Your task to perform on an android device: open a bookmark in the chrome app Image 0: 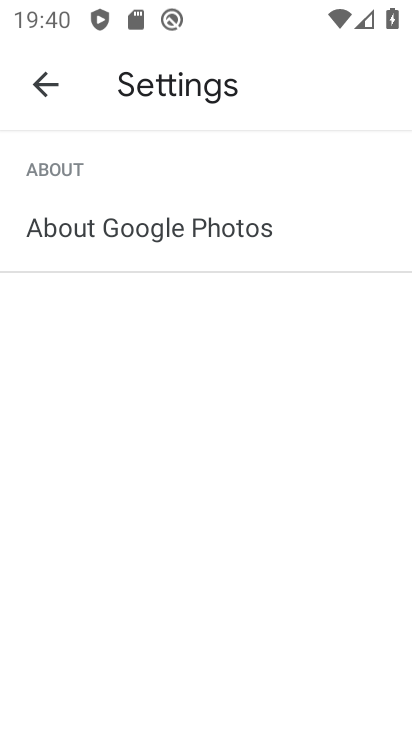
Step 0: press home button
Your task to perform on an android device: open a bookmark in the chrome app Image 1: 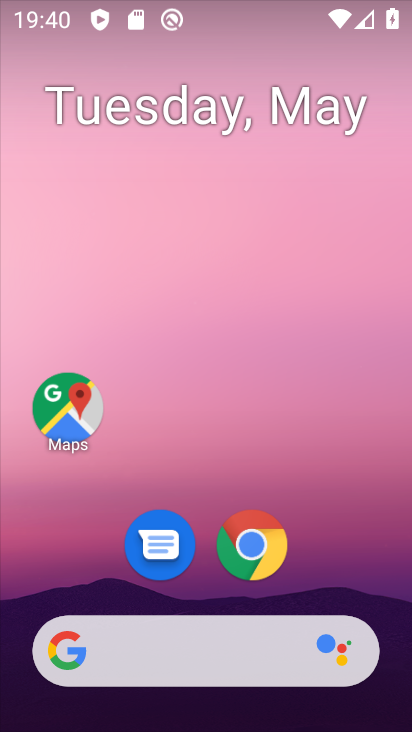
Step 1: click (272, 541)
Your task to perform on an android device: open a bookmark in the chrome app Image 2: 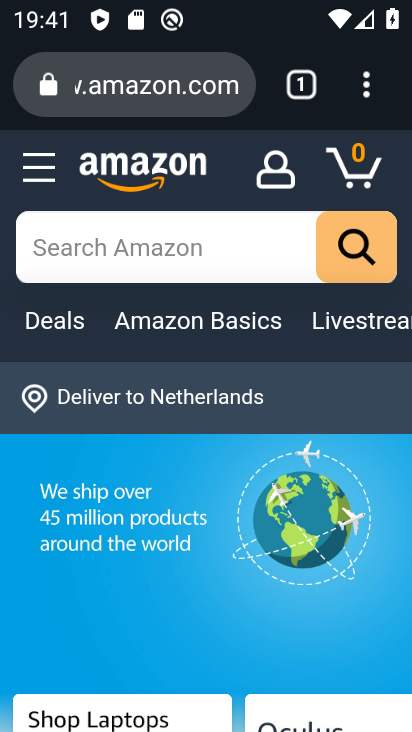
Step 2: click (363, 85)
Your task to perform on an android device: open a bookmark in the chrome app Image 3: 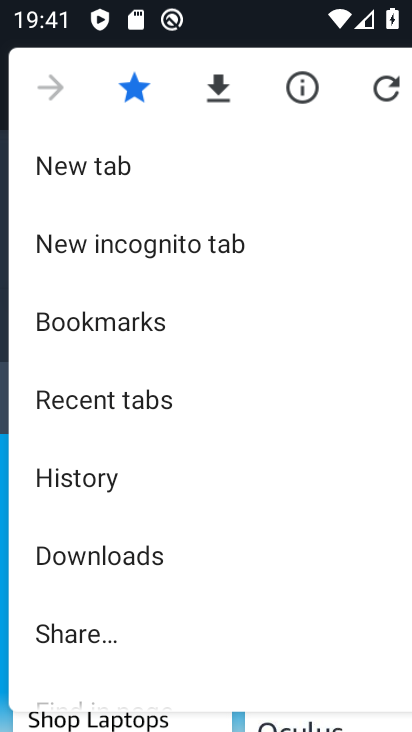
Step 3: click (130, 333)
Your task to perform on an android device: open a bookmark in the chrome app Image 4: 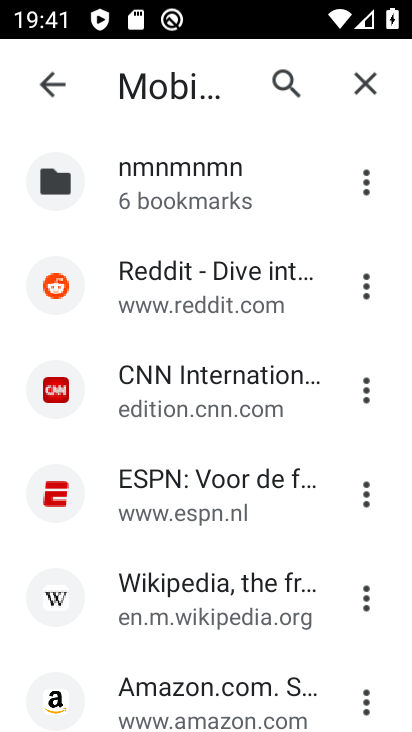
Step 4: click (126, 469)
Your task to perform on an android device: open a bookmark in the chrome app Image 5: 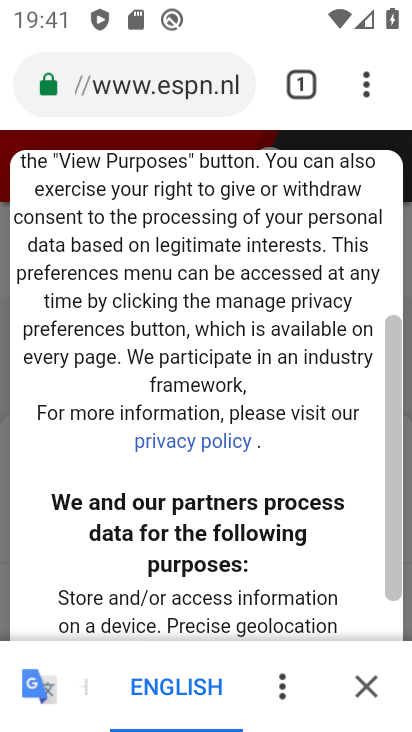
Step 5: click (362, 139)
Your task to perform on an android device: open a bookmark in the chrome app Image 6: 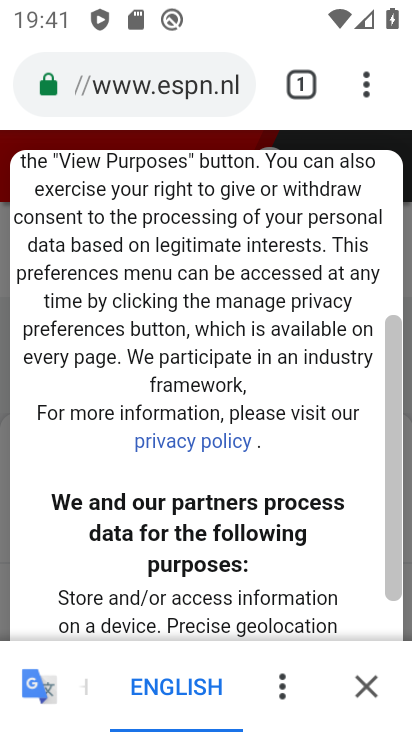
Step 6: task complete